Your task to perform on an android device: Open wifi settings Image 0: 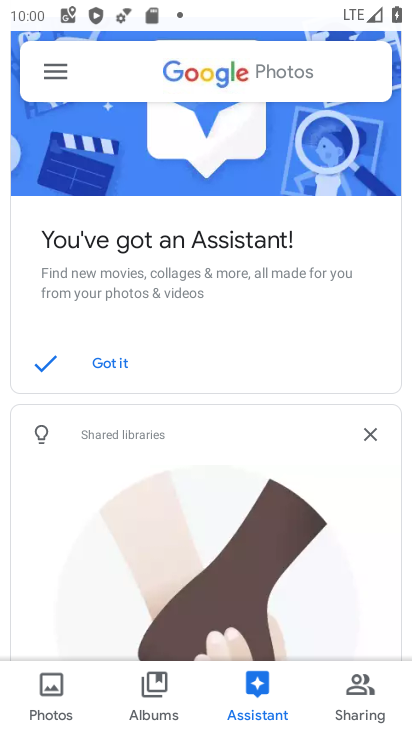
Step 0: press home button
Your task to perform on an android device: Open wifi settings Image 1: 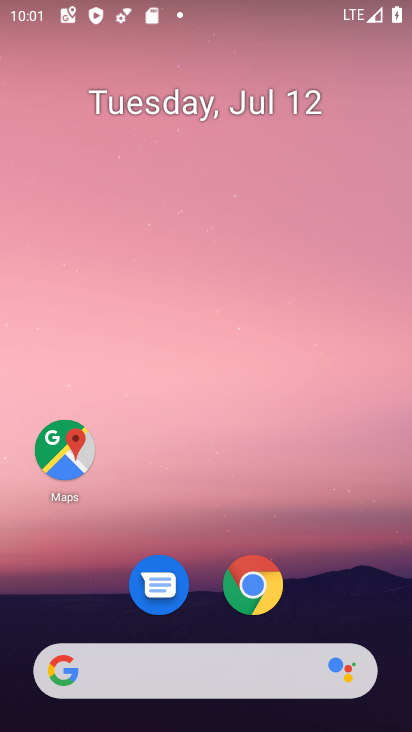
Step 1: drag from (188, 686) to (324, 26)
Your task to perform on an android device: Open wifi settings Image 2: 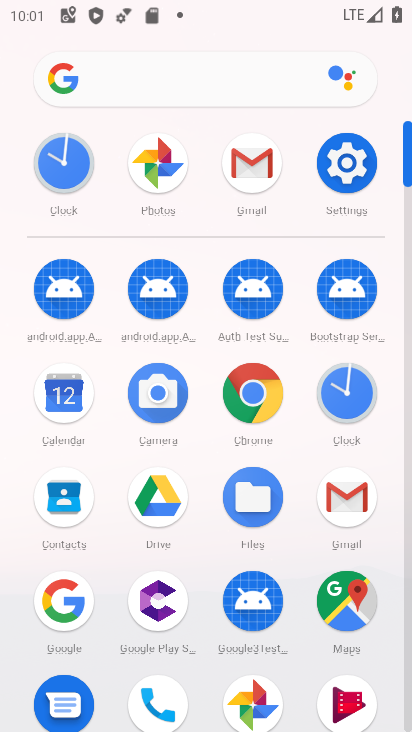
Step 2: click (353, 156)
Your task to perform on an android device: Open wifi settings Image 3: 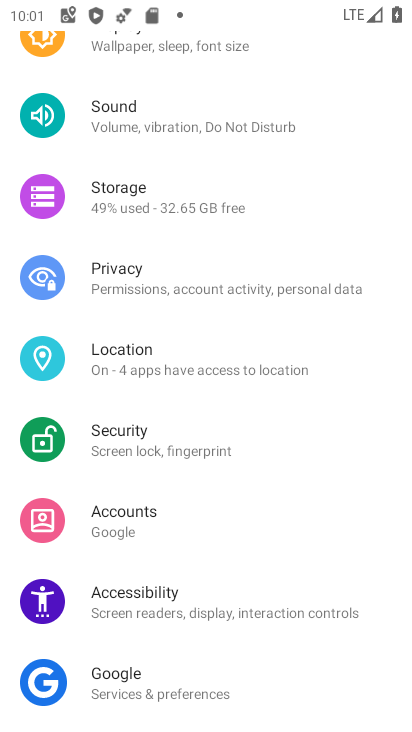
Step 3: drag from (354, 84) to (235, 586)
Your task to perform on an android device: Open wifi settings Image 4: 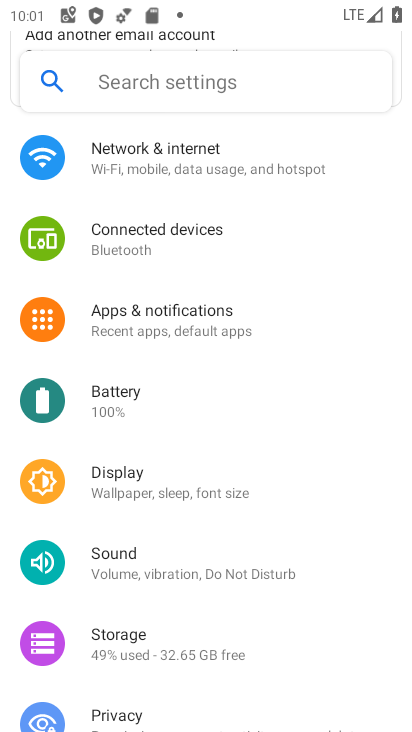
Step 4: drag from (325, 139) to (242, 635)
Your task to perform on an android device: Open wifi settings Image 5: 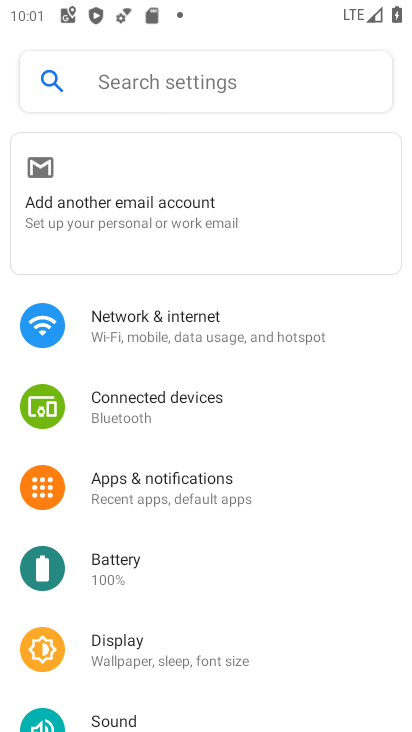
Step 5: click (183, 320)
Your task to perform on an android device: Open wifi settings Image 6: 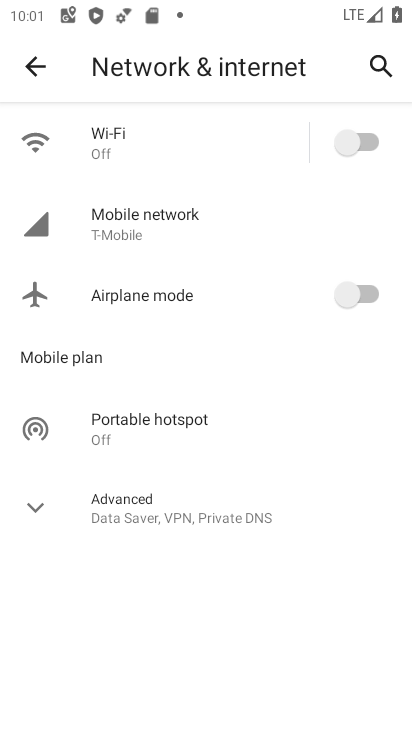
Step 6: click (164, 139)
Your task to perform on an android device: Open wifi settings Image 7: 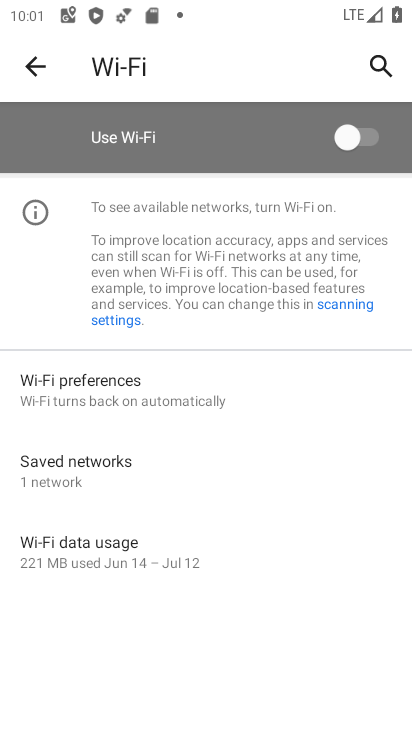
Step 7: task complete